Your task to perform on an android device: What's the weather? Image 0: 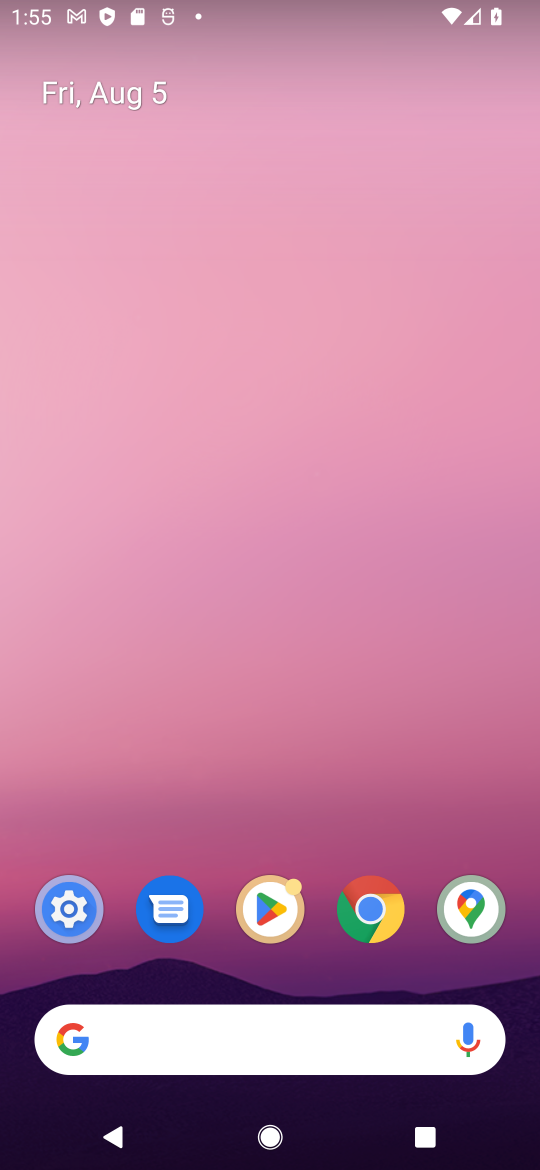
Step 0: click (285, 1013)
Your task to perform on an android device: What's the weather? Image 1: 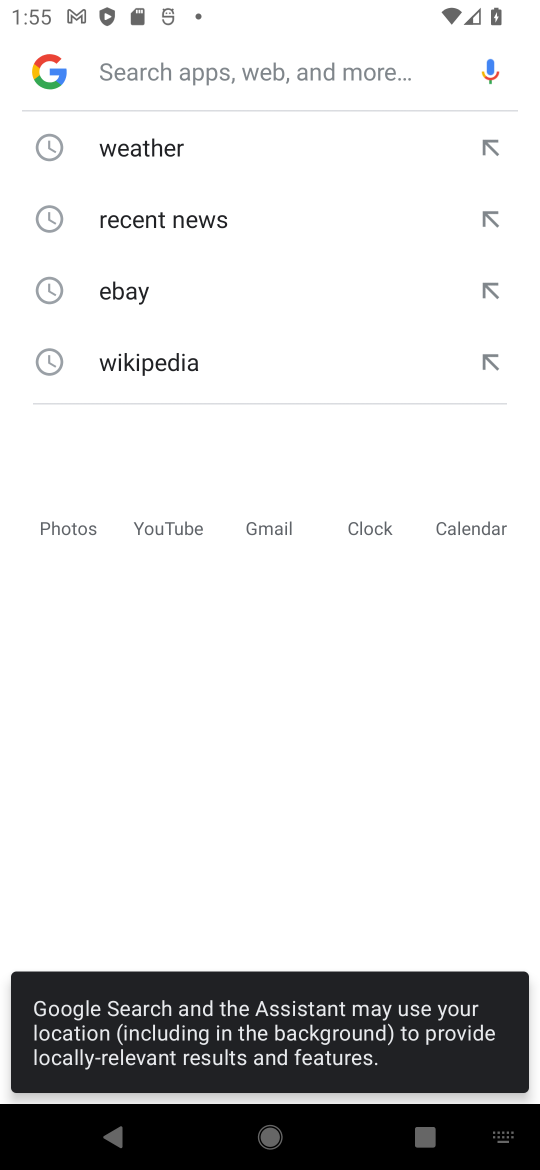
Step 1: click (209, 128)
Your task to perform on an android device: What's the weather? Image 2: 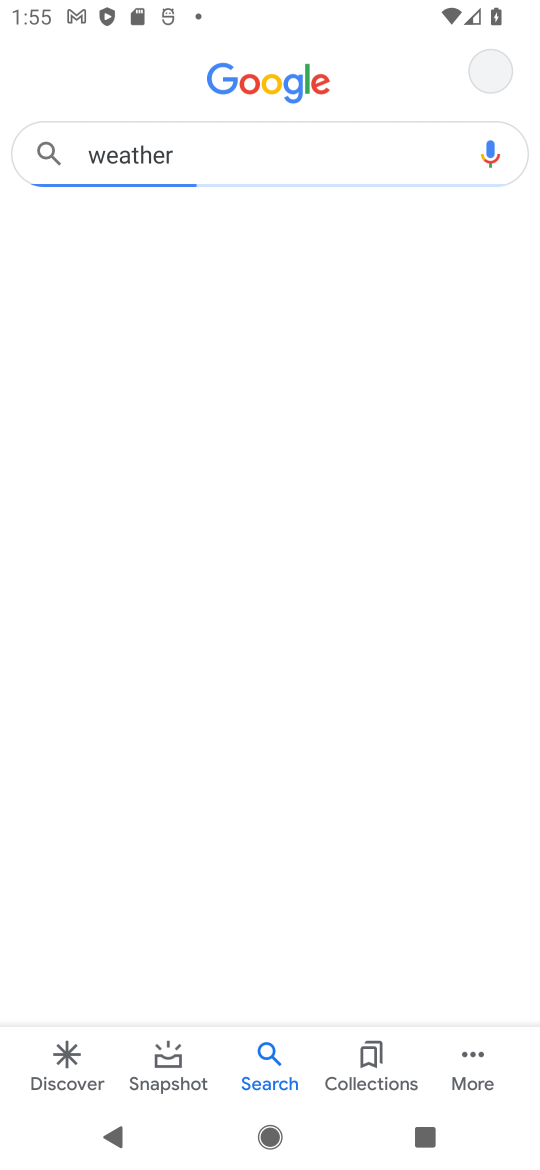
Step 2: task complete